Your task to perform on an android device: Show me the alarms in the clock app Image 0: 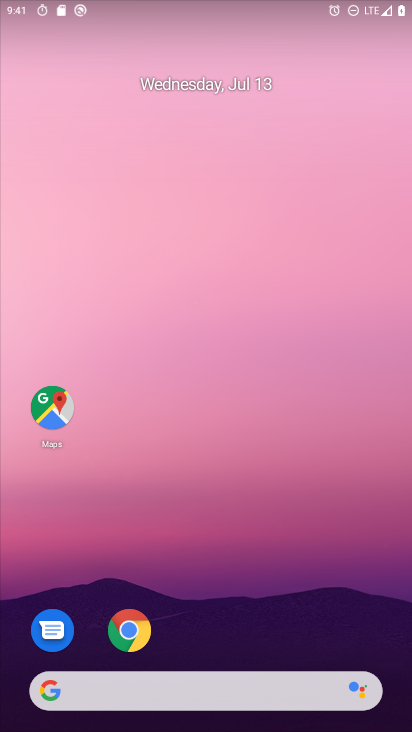
Step 0: drag from (388, 676) to (175, 15)
Your task to perform on an android device: Show me the alarms in the clock app Image 1: 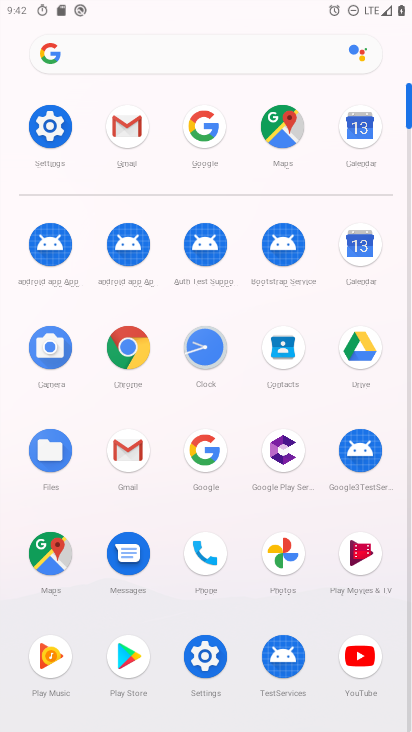
Step 1: click (209, 354)
Your task to perform on an android device: Show me the alarms in the clock app Image 2: 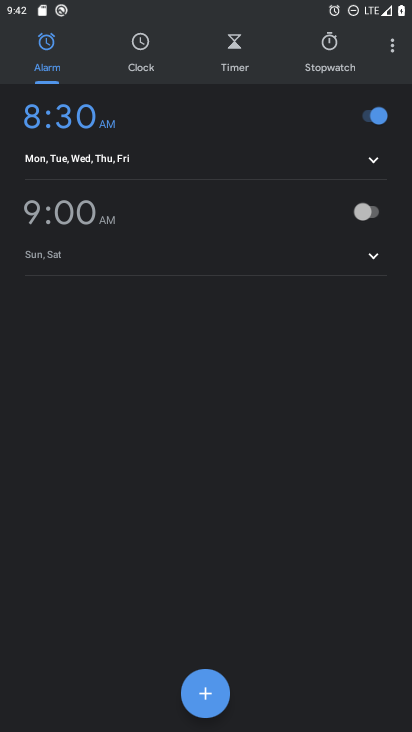
Step 2: task complete